Your task to perform on an android device: Open battery settings Image 0: 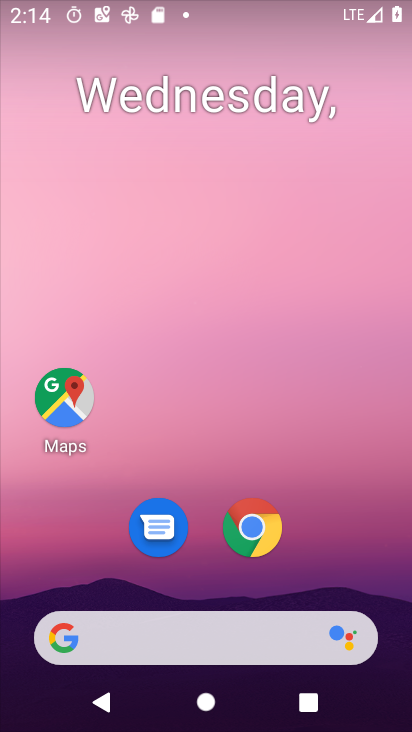
Step 0: drag from (321, 511) to (360, 0)
Your task to perform on an android device: Open battery settings Image 1: 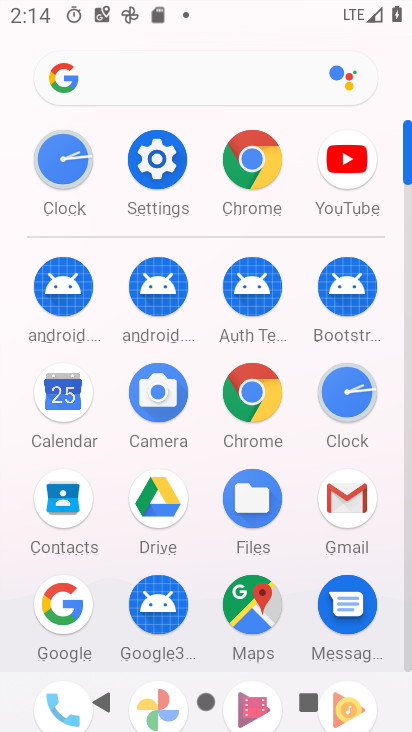
Step 1: click (159, 239)
Your task to perform on an android device: Open battery settings Image 2: 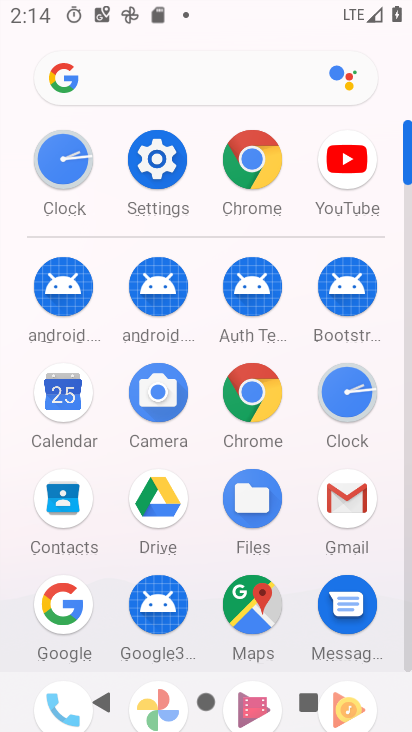
Step 2: click (160, 167)
Your task to perform on an android device: Open battery settings Image 3: 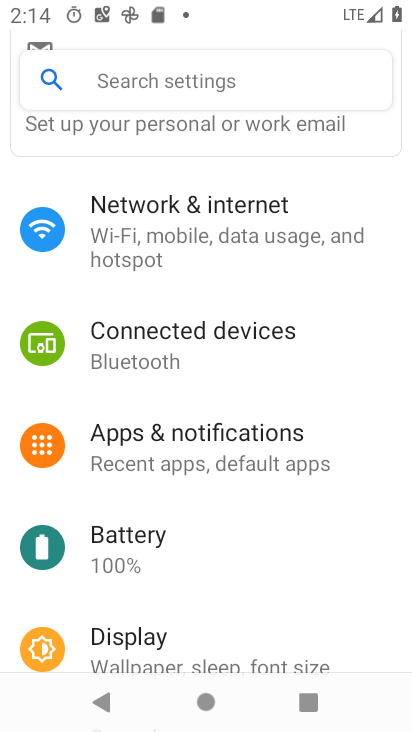
Step 3: click (209, 538)
Your task to perform on an android device: Open battery settings Image 4: 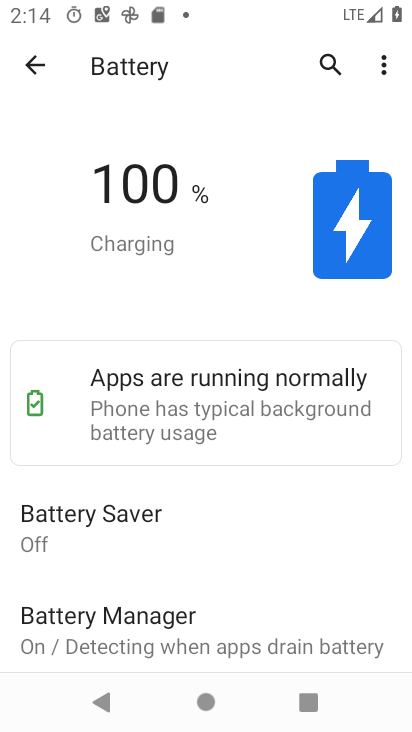
Step 4: task complete